Your task to perform on an android device: delete the emails in spam in the gmail app Image 0: 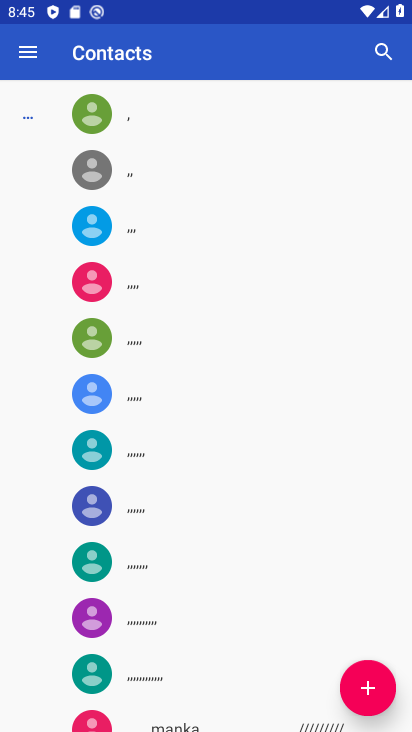
Step 0: press home button
Your task to perform on an android device: delete the emails in spam in the gmail app Image 1: 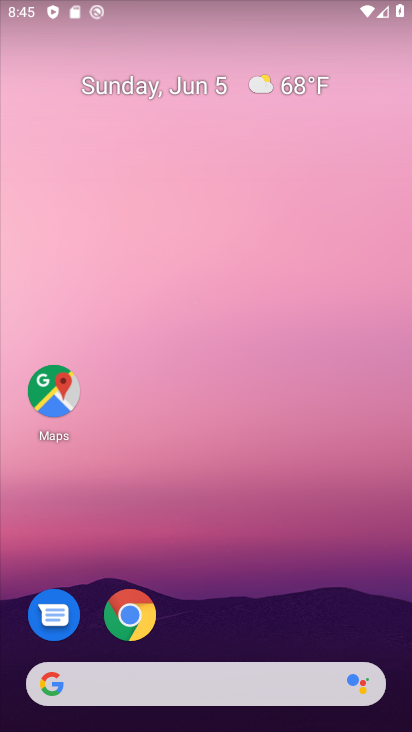
Step 1: drag from (139, 729) to (253, 160)
Your task to perform on an android device: delete the emails in spam in the gmail app Image 2: 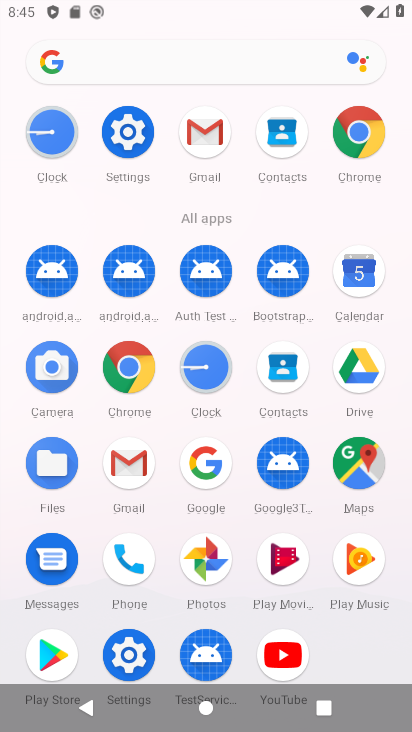
Step 2: click (130, 476)
Your task to perform on an android device: delete the emails in spam in the gmail app Image 3: 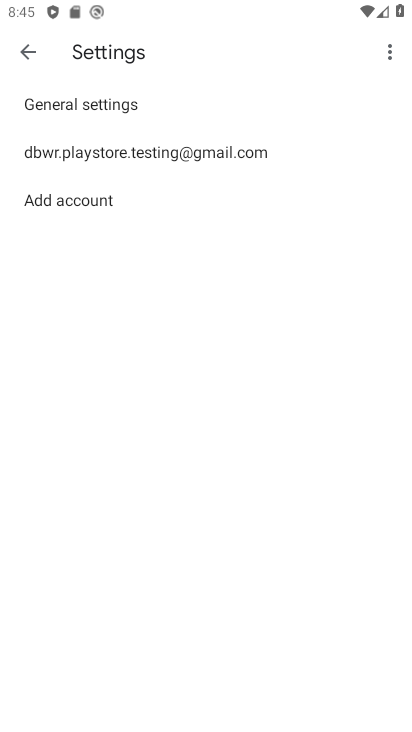
Step 3: click (57, 165)
Your task to perform on an android device: delete the emails in spam in the gmail app Image 4: 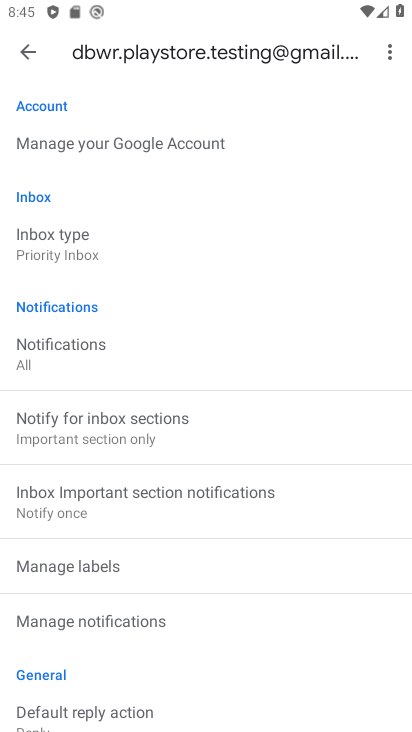
Step 4: drag from (144, 649) to (195, 337)
Your task to perform on an android device: delete the emails in spam in the gmail app Image 5: 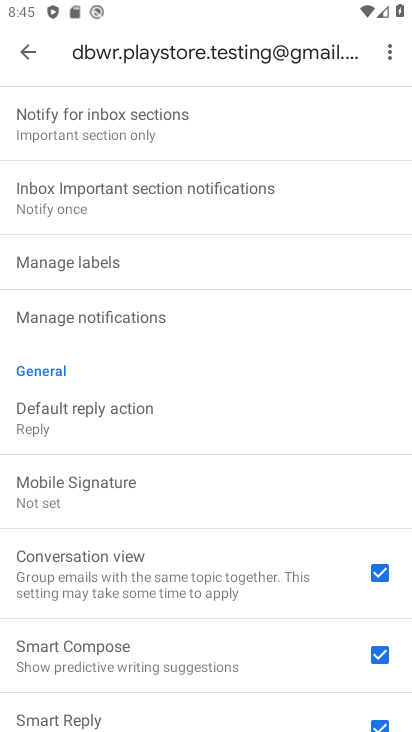
Step 5: click (35, 57)
Your task to perform on an android device: delete the emails in spam in the gmail app Image 6: 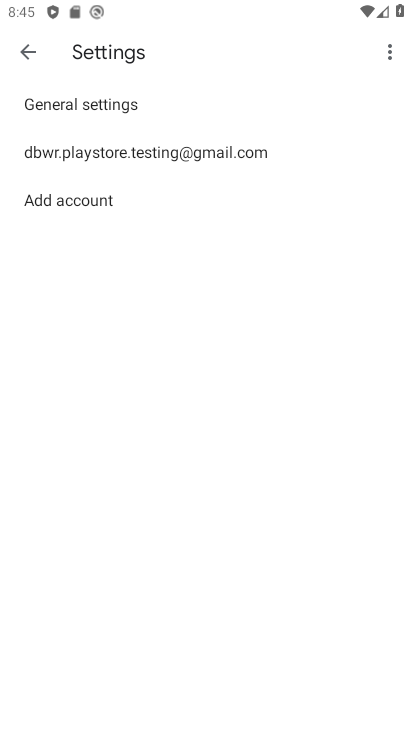
Step 6: click (35, 57)
Your task to perform on an android device: delete the emails in spam in the gmail app Image 7: 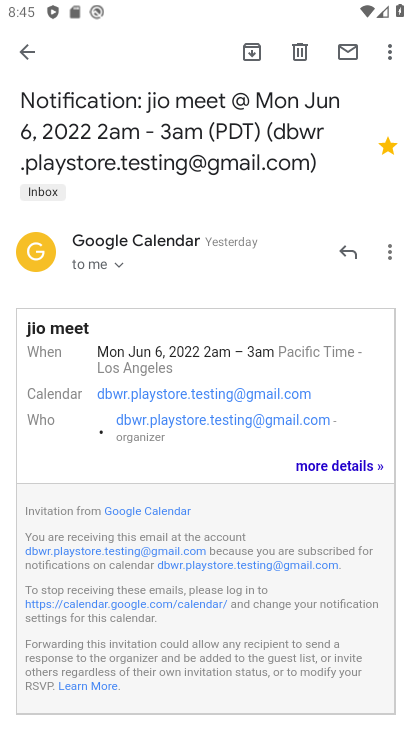
Step 7: click (35, 66)
Your task to perform on an android device: delete the emails in spam in the gmail app Image 8: 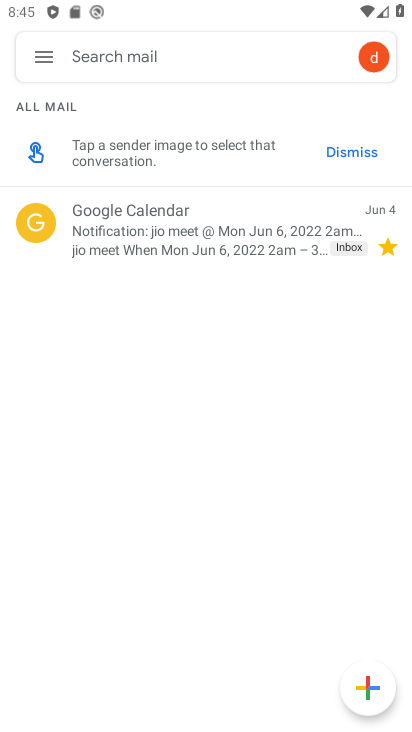
Step 8: click (36, 54)
Your task to perform on an android device: delete the emails in spam in the gmail app Image 9: 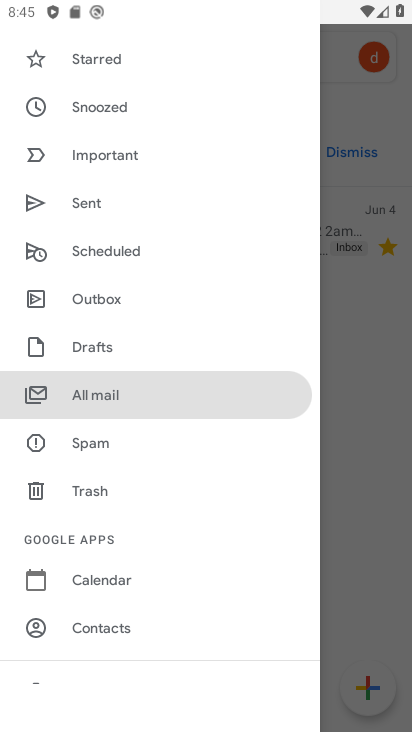
Step 9: click (106, 440)
Your task to perform on an android device: delete the emails in spam in the gmail app Image 10: 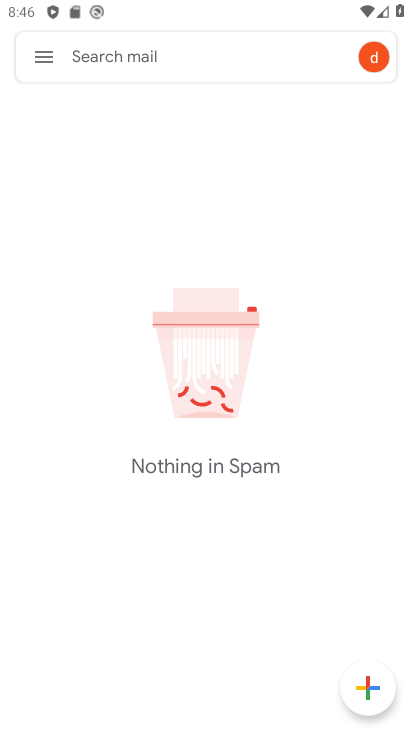
Step 10: task complete